Your task to perform on an android device: Go to accessibility settings Image 0: 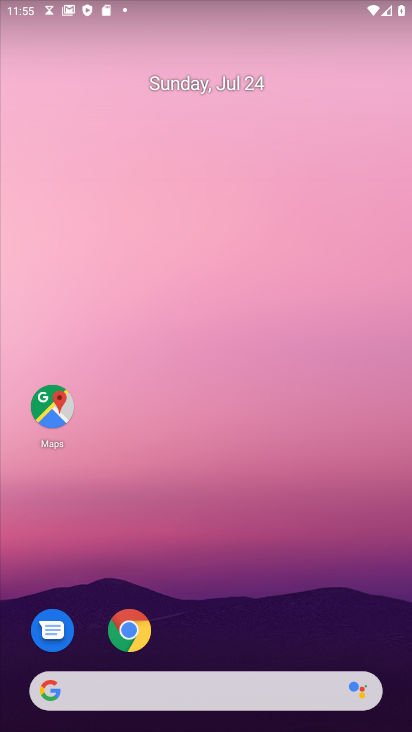
Step 0: press home button
Your task to perform on an android device: Go to accessibility settings Image 1: 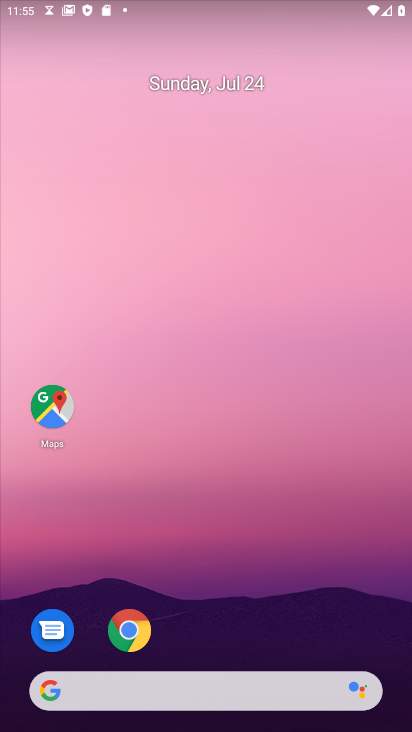
Step 1: drag from (247, 636) to (159, 176)
Your task to perform on an android device: Go to accessibility settings Image 2: 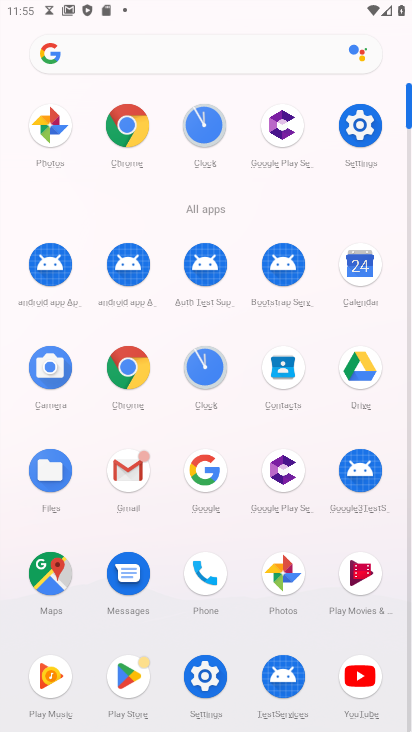
Step 2: click (361, 144)
Your task to perform on an android device: Go to accessibility settings Image 3: 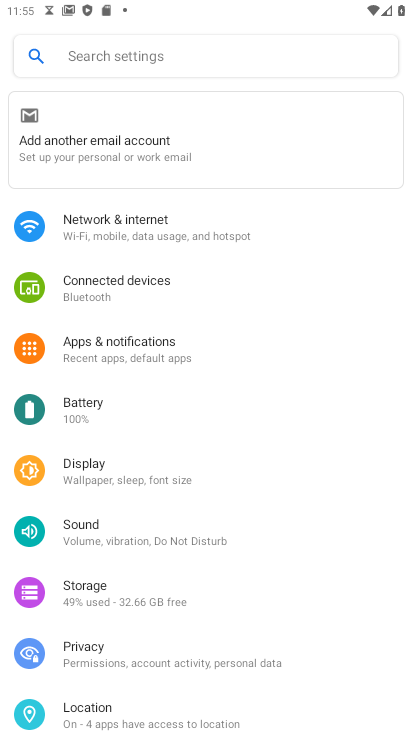
Step 3: drag from (136, 693) to (142, 261)
Your task to perform on an android device: Go to accessibility settings Image 4: 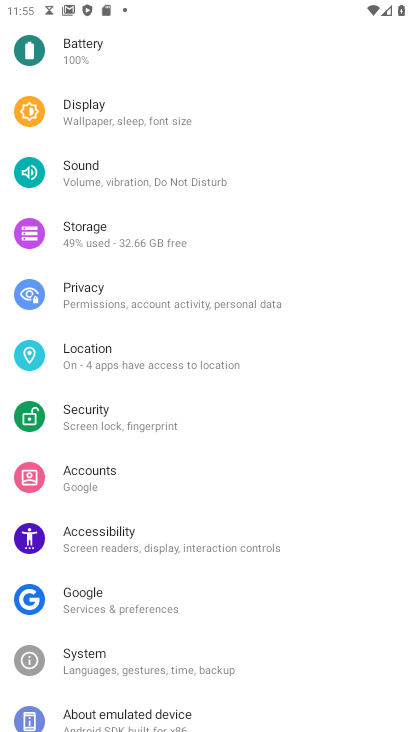
Step 4: click (75, 531)
Your task to perform on an android device: Go to accessibility settings Image 5: 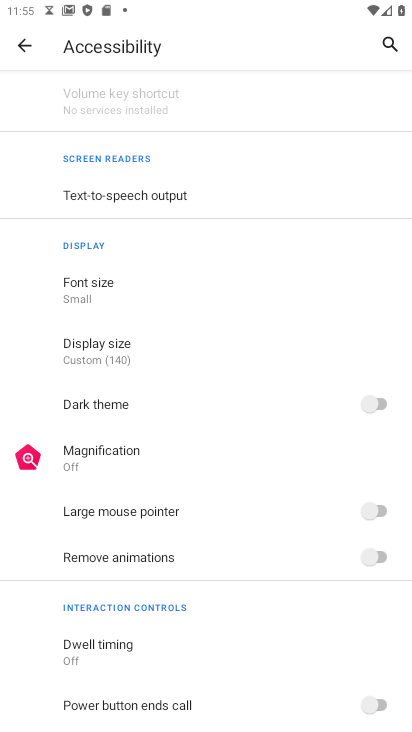
Step 5: task complete